Your task to perform on an android device: Go to CNN.com Image 0: 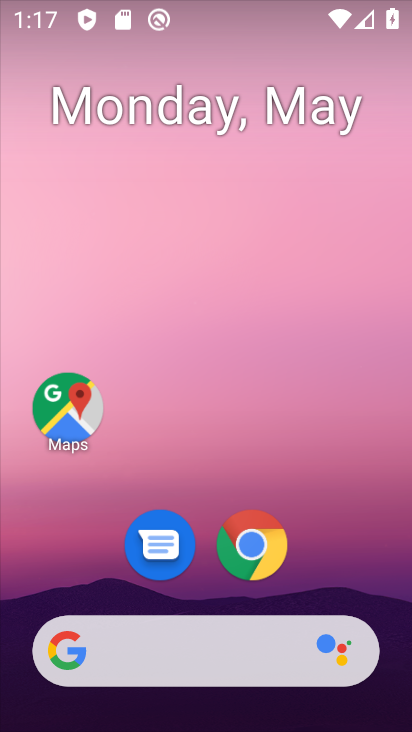
Step 0: click (182, 644)
Your task to perform on an android device: Go to CNN.com Image 1: 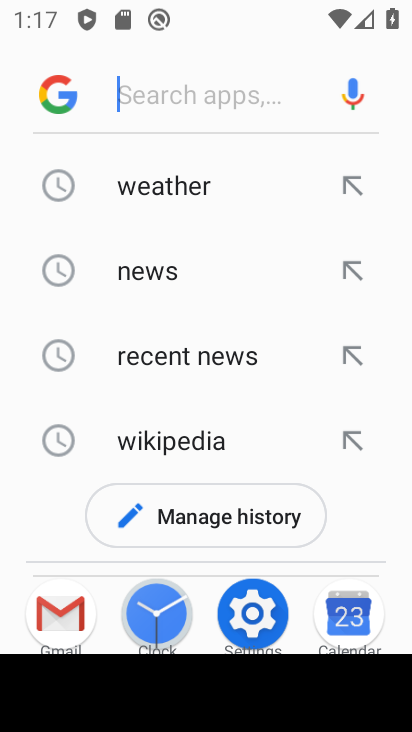
Step 1: type "cnn.com"
Your task to perform on an android device: Go to CNN.com Image 2: 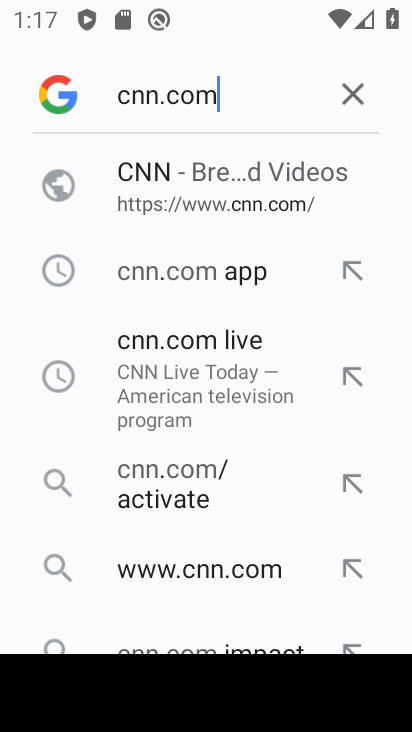
Step 2: click (234, 207)
Your task to perform on an android device: Go to CNN.com Image 3: 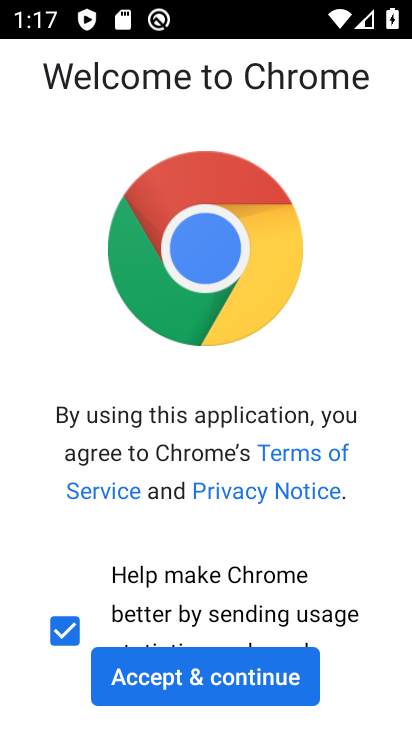
Step 3: click (182, 694)
Your task to perform on an android device: Go to CNN.com Image 4: 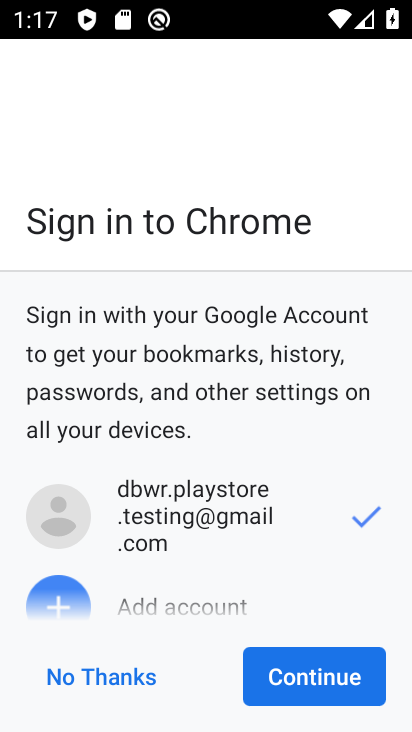
Step 4: click (333, 691)
Your task to perform on an android device: Go to CNN.com Image 5: 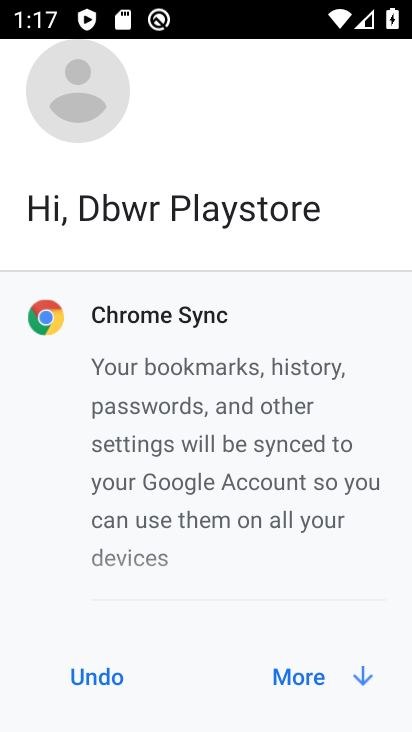
Step 5: click (295, 661)
Your task to perform on an android device: Go to CNN.com Image 6: 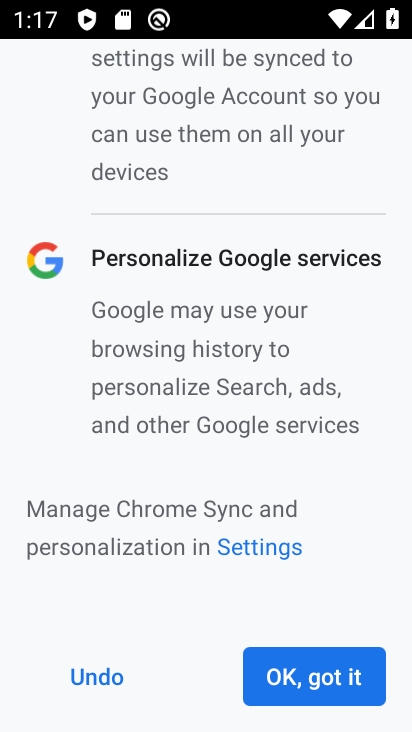
Step 6: click (301, 679)
Your task to perform on an android device: Go to CNN.com Image 7: 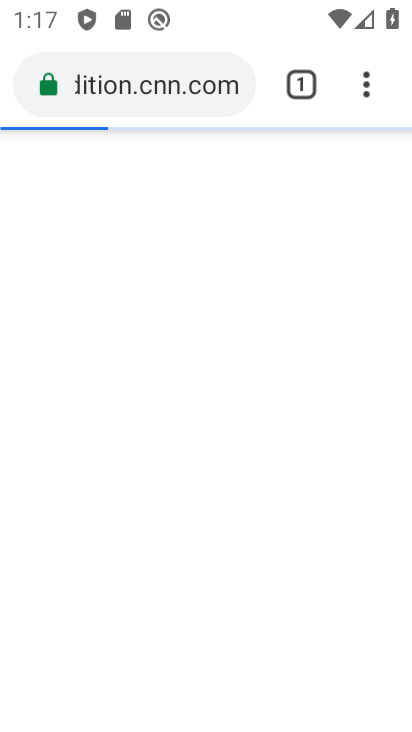
Step 7: task complete